Your task to perform on an android device: delete a single message in the gmail app Image 0: 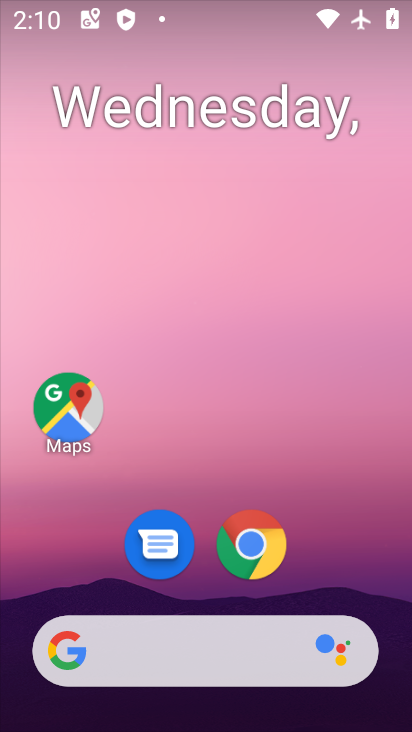
Step 0: drag from (335, 572) to (323, 194)
Your task to perform on an android device: delete a single message in the gmail app Image 1: 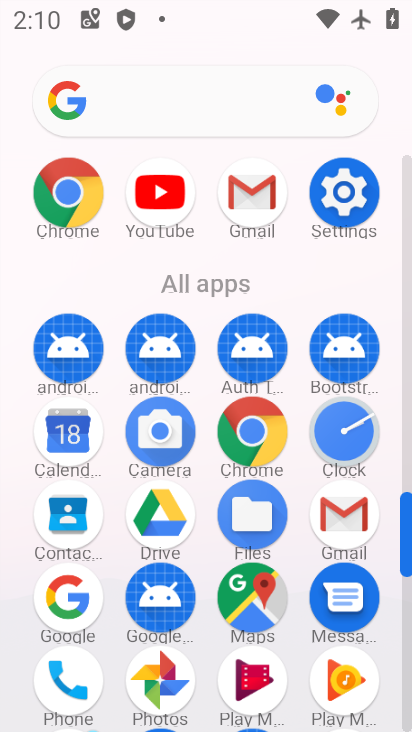
Step 1: click (266, 184)
Your task to perform on an android device: delete a single message in the gmail app Image 2: 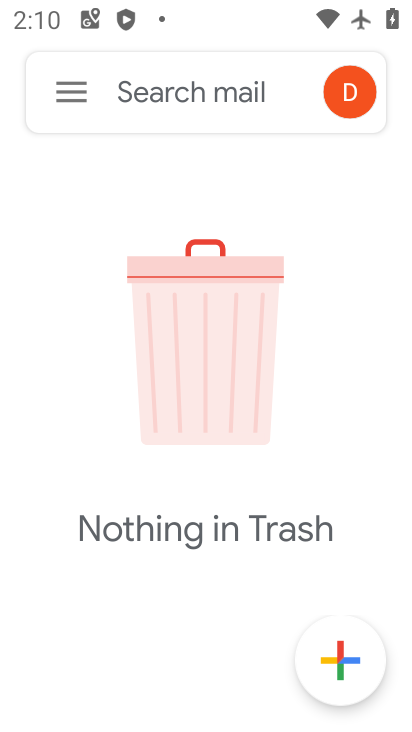
Step 2: click (57, 80)
Your task to perform on an android device: delete a single message in the gmail app Image 3: 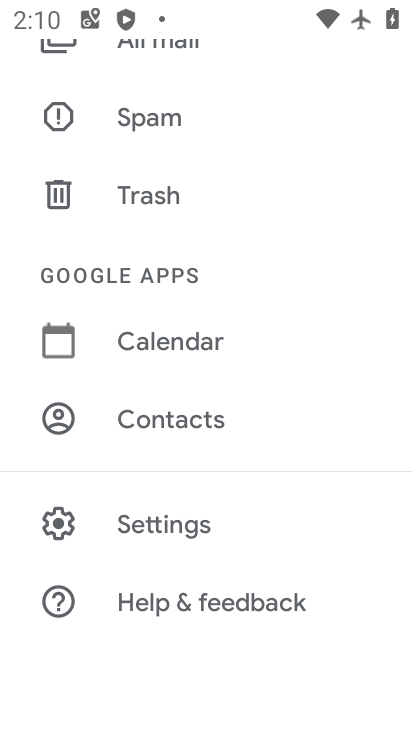
Step 3: drag from (132, 189) to (165, 448)
Your task to perform on an android device: delete a single message in the gmail app Image 4: 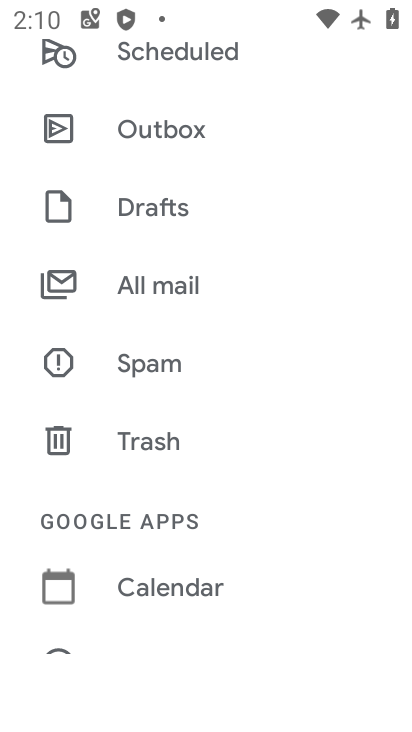
Step 4: click (180, 294)
Your task to perform on an android device: delete a single message in the gmail app Image 5: 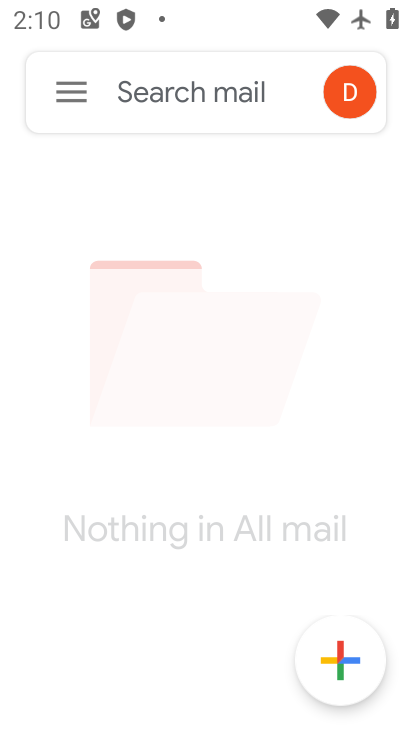
Step 5: task complete